Your task to perform on an android device: set the stopwatch Image 0: 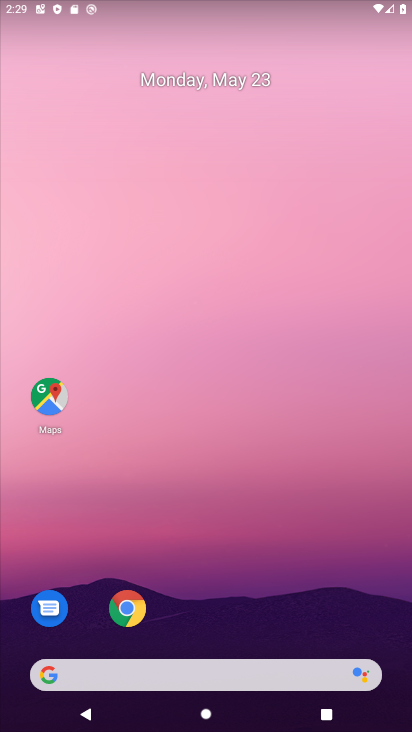
Step 0: drag from (222, 557) to (218, 1)
Your task to perform on an android device: set the stopwatch Image 1: 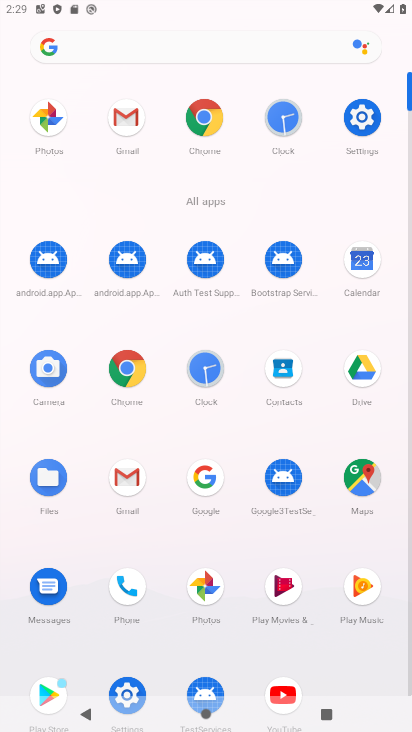
Step 1: click (280, 125)
Your task to perform on an android device: set the stopwatch Image 2: 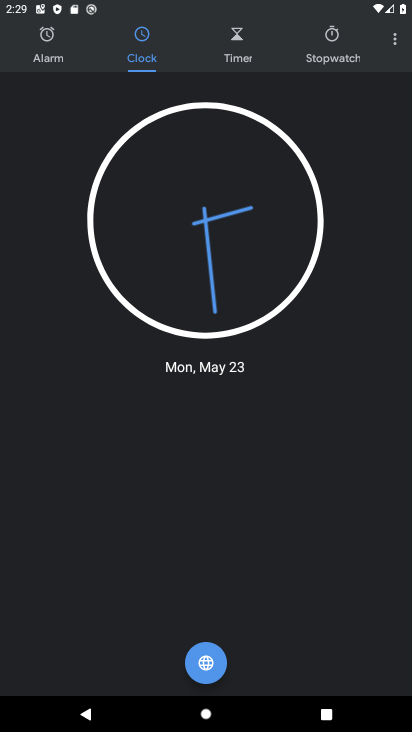
Step 2: click (313, 55)
Your task to perform on an android device: set the stopwatch Image 3: 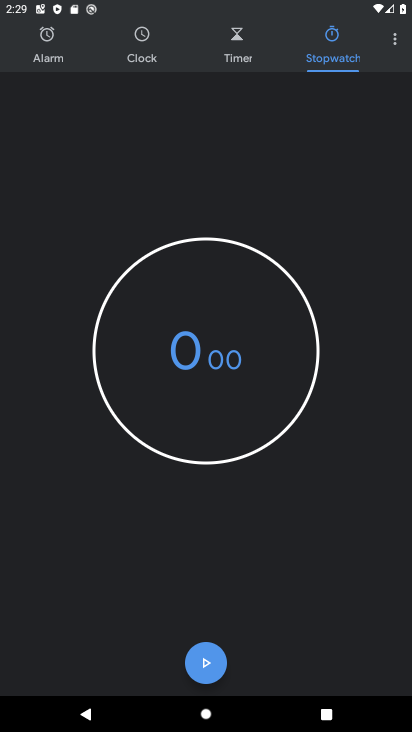
Step 3: click (204, 665)
Your task to perform on an android device: set the stopwatch Image 4: 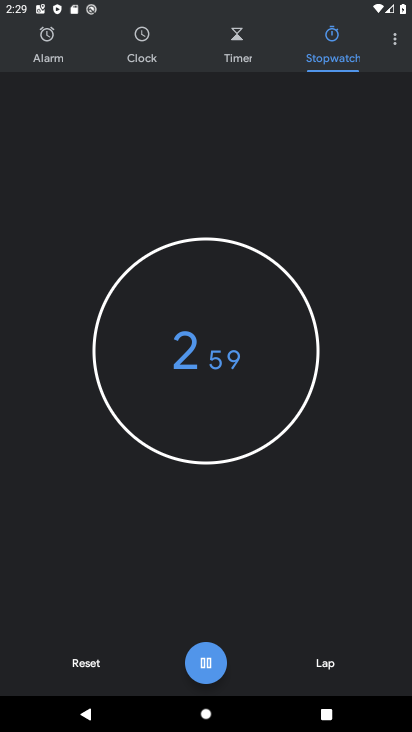
Step 4: task complete